Your task to perform on an android device: Open battery settings Image 0: 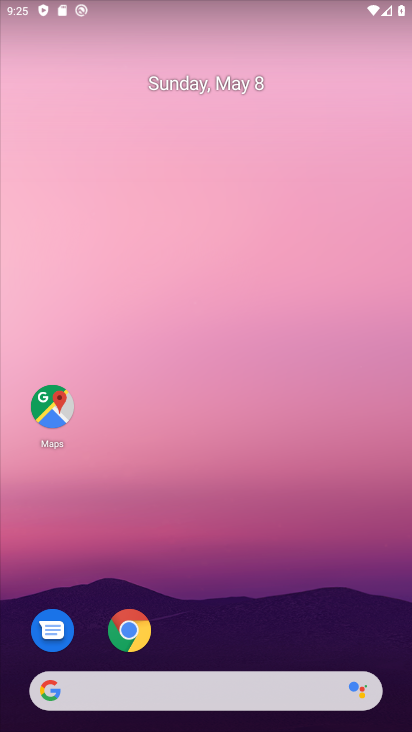
Step 0: drag from (285, 622) to (255, 1)
Your task to perform on an android device: Open battery settings Image 1: 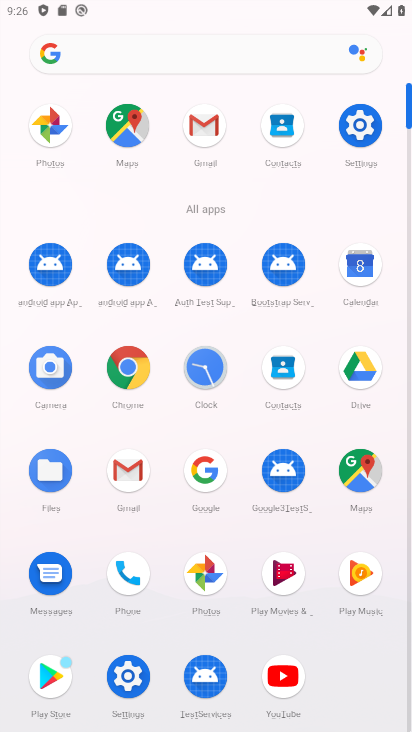
Step 1: click (349, 117)
Your task to perform on an android device: Open battery settings Image 2: 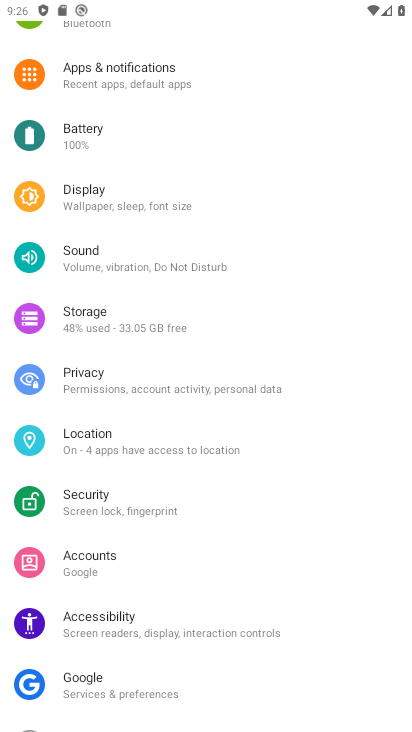
Step 2: click (96, 147)
Your task to perform on an android device: Open battery settings Image 3: 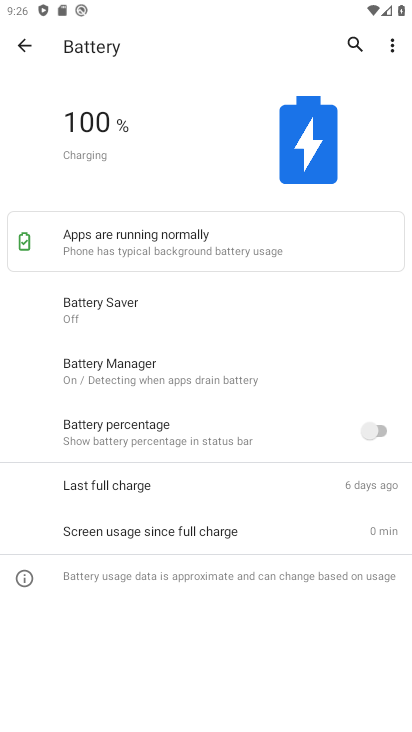
Step 3: task complete